Your task to perform on an android device: Search for beats solo 3 on newegg, select the first entry, add it to the cart, then select checkout. Image 0: 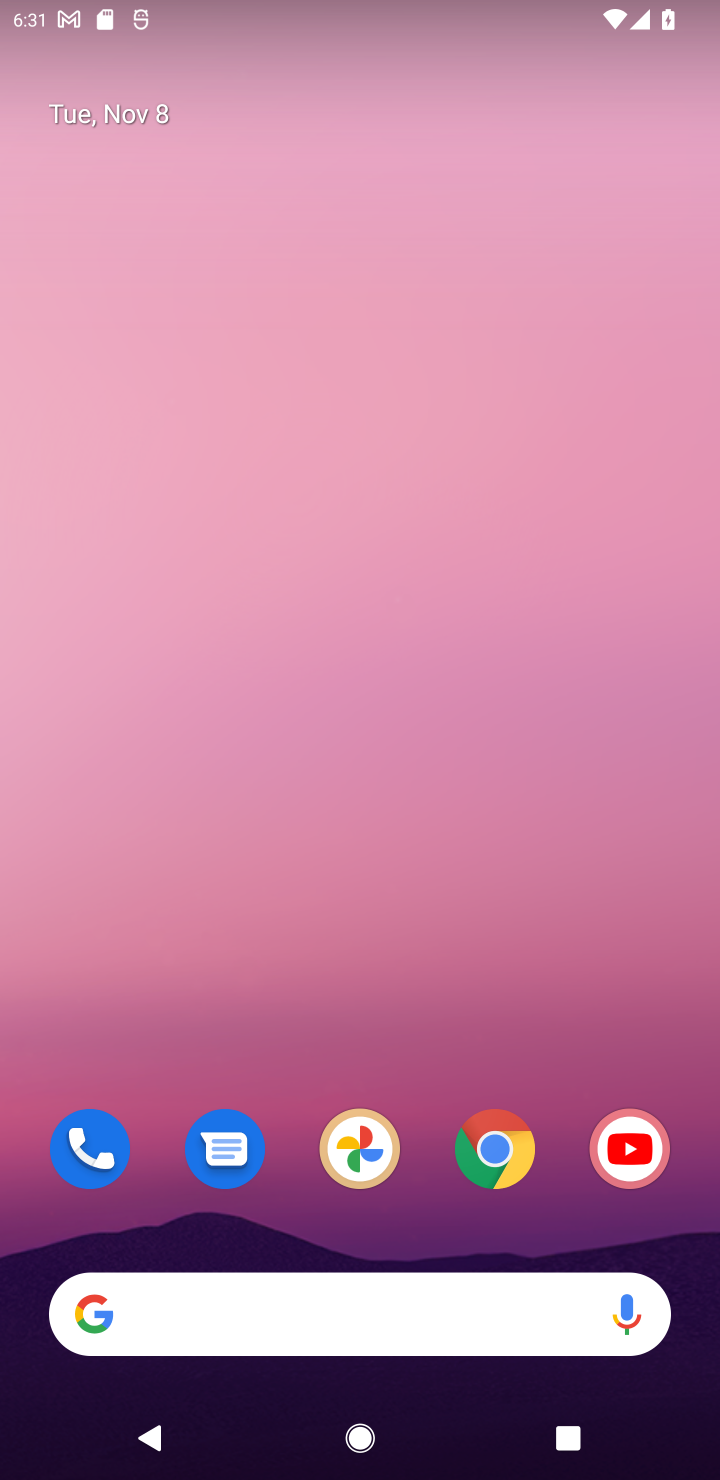
Step 0: click (482, 1152)
Your task to perform on an android device: Search for beats solo 3 on newegg, select the first entry, add it to the cart, then select checkout. Image 1: 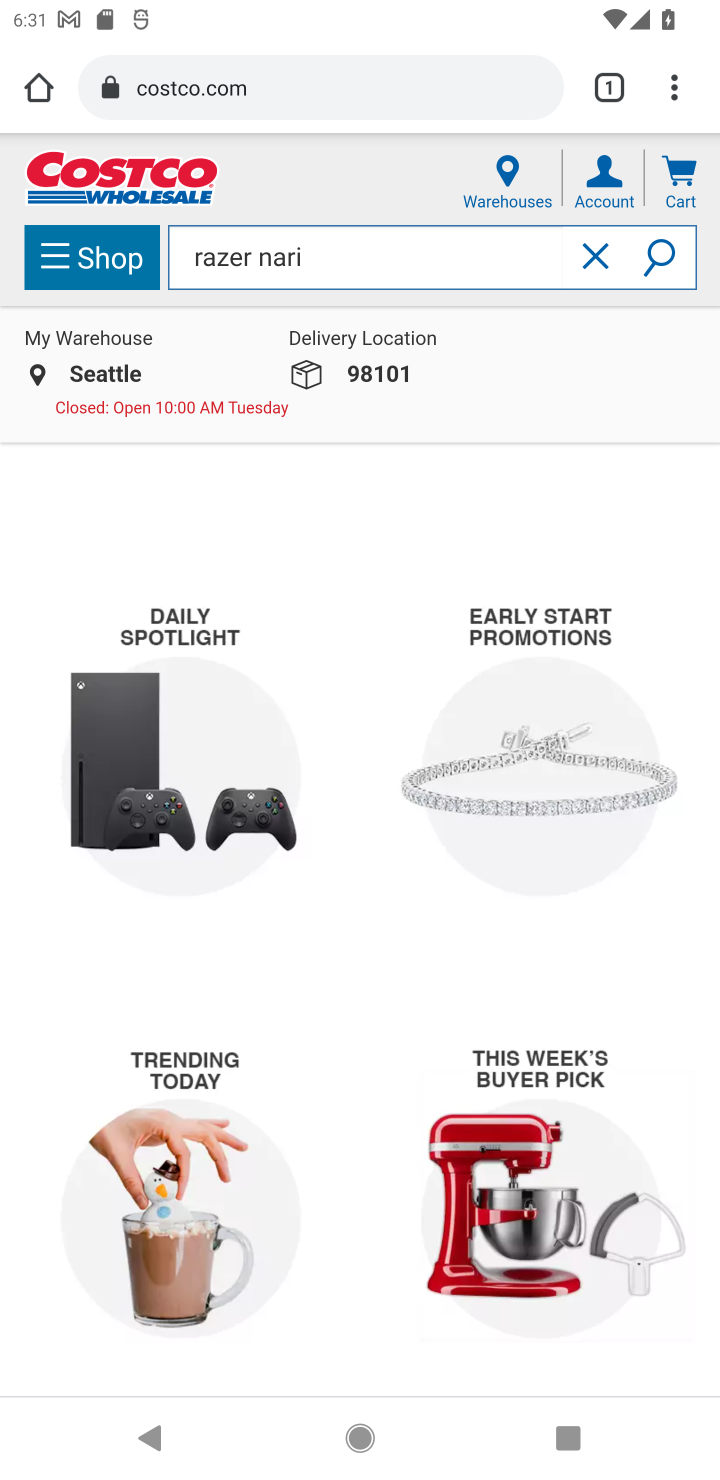
Step 1: click (443, 76)
Your task to perform on an android device: Search for beats solo 3 on newegg, select the first entry, add it to the cart, then select checkout. Image 2: 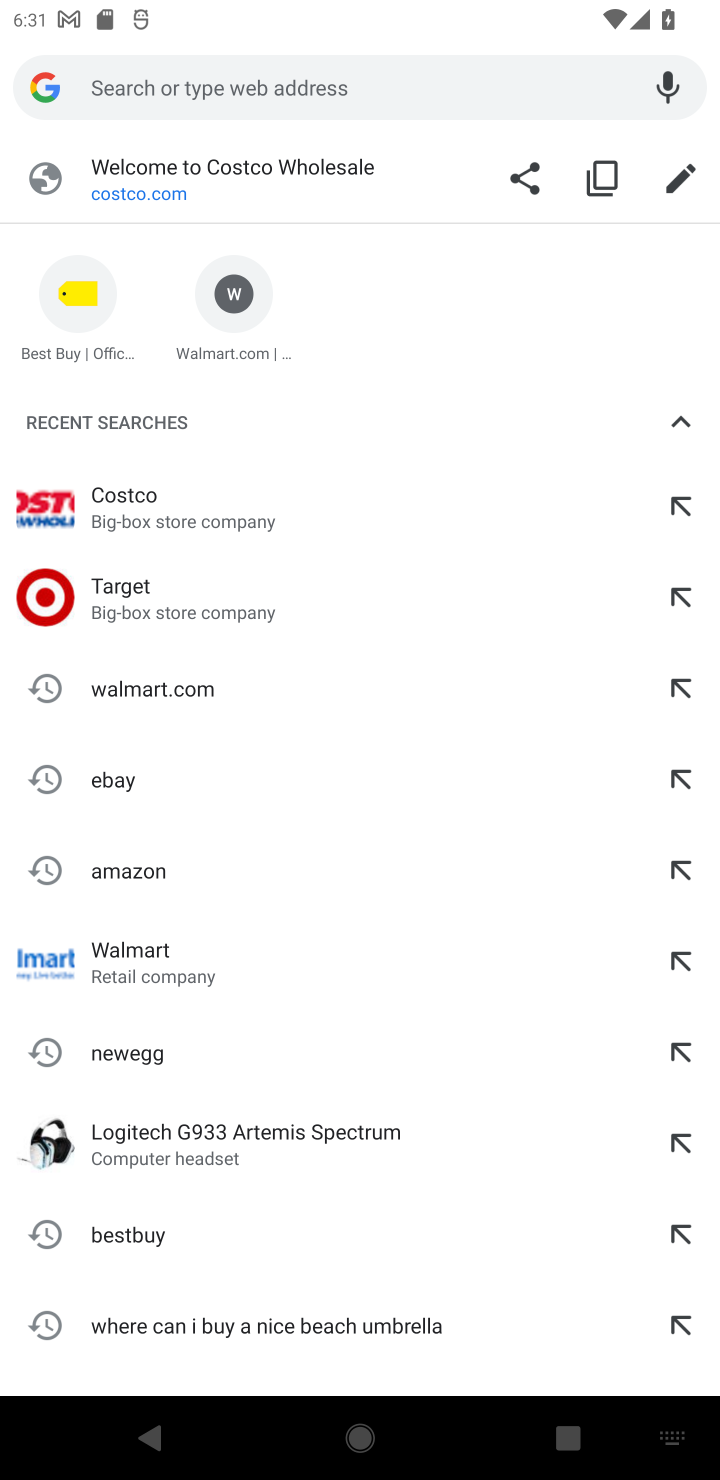
Step 2: type "newegg"
Your task to perform on an android device: Search for beats solo 3 on newegg, select the first entry, add it to the cart, then select checkout. Image 3: 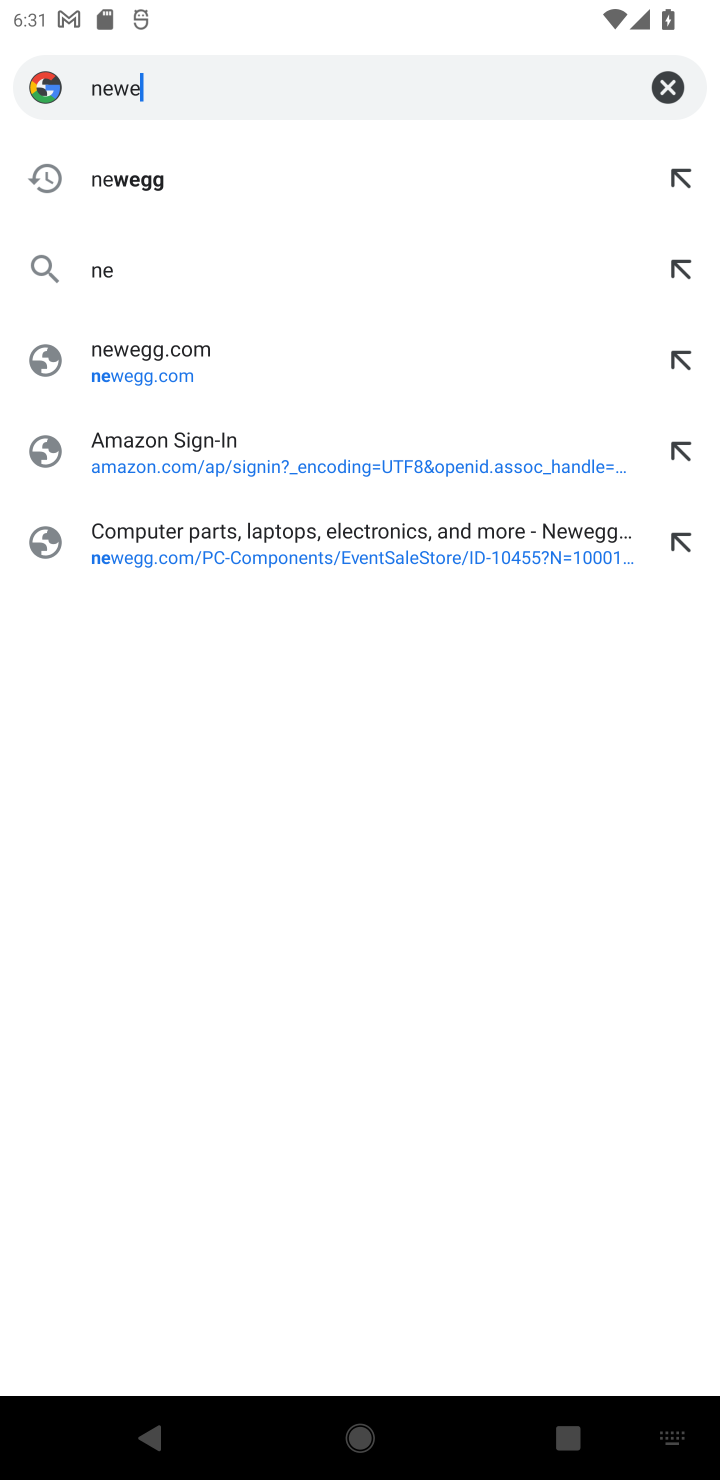
Step 3: press enter
Your task to perform on an android device: Search for beats solo 3 on newegg, select the first entry, add it to the cart, then select checkout. Image 4: 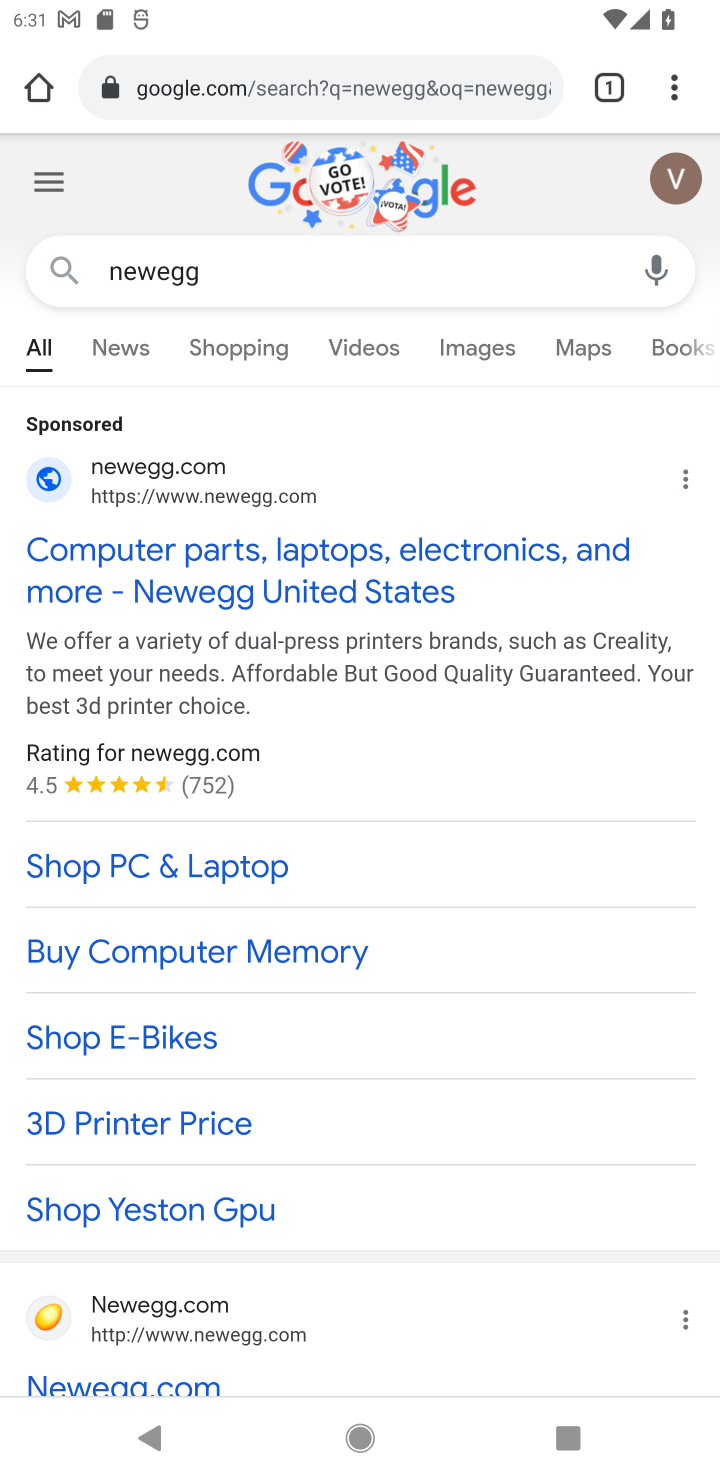
Step 4: click (214, 483)
Your task to perform on an android device: Search for beats solo 3 on newegg, select the first entry, add it to the cart, then select checkout. Image 5: 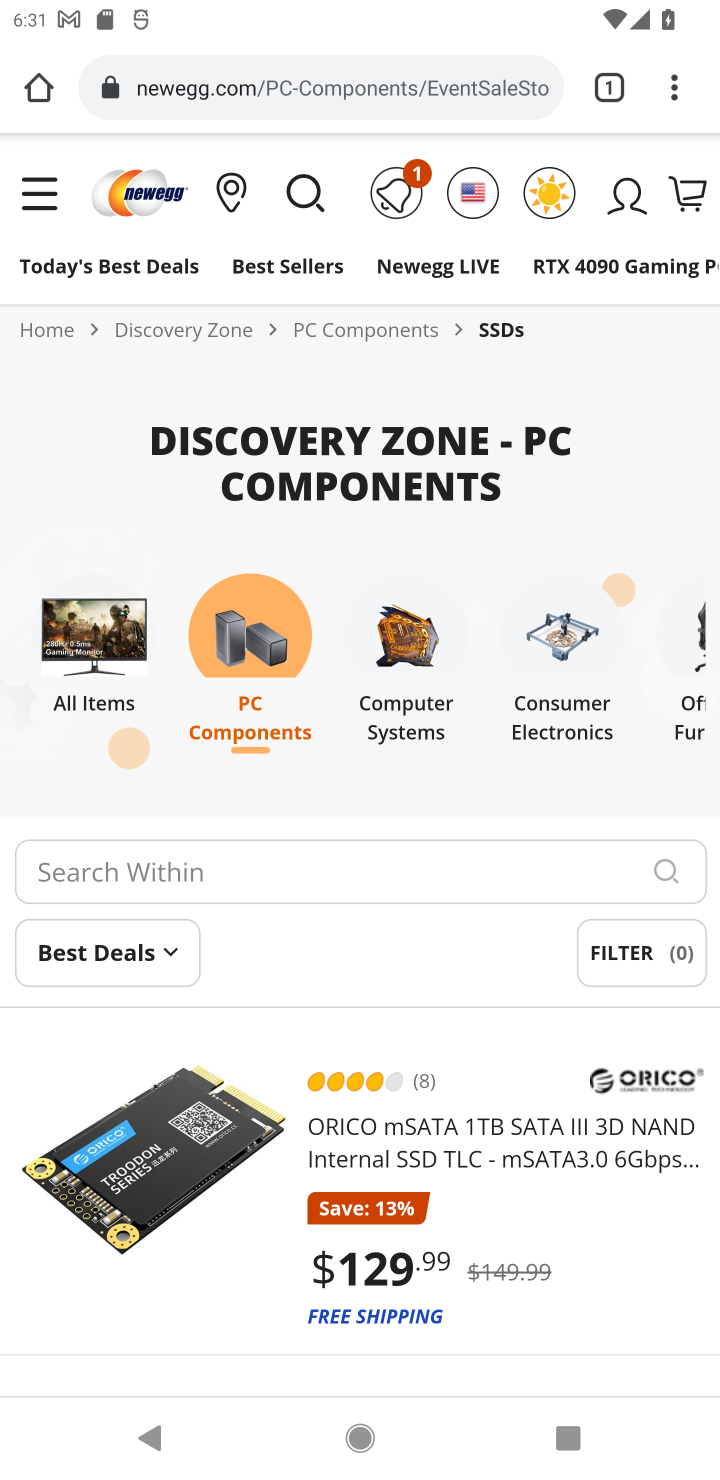
Step 5: click (295, 194)
Your task to perform on an android device: Search for beats solo 3 on newegg, select the first entry, add it to the cart, then select checkout. Image 6: 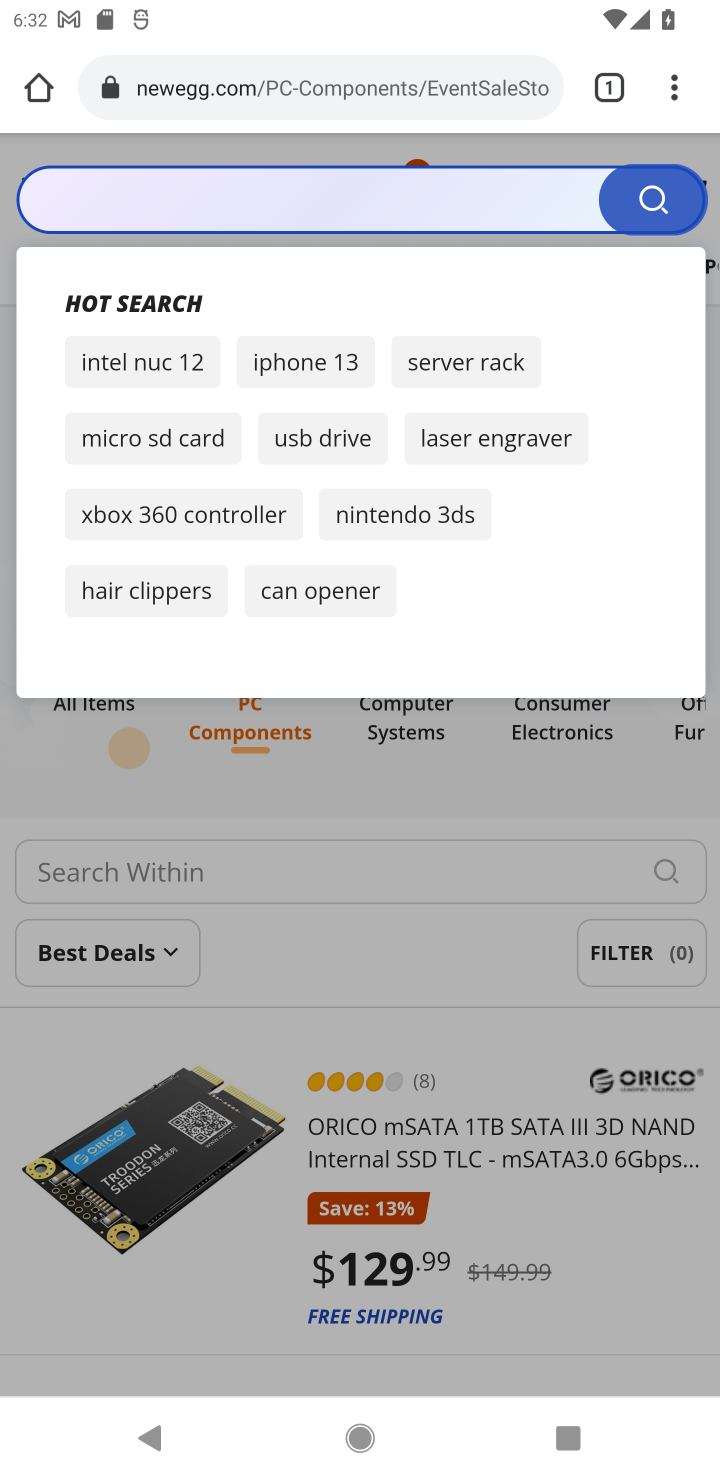
Step 6: press enter
Your task to perform on an android device: Search for beats solo 3 on newegg, select the first entry, add it to the cart, then select checkout. Image 7: 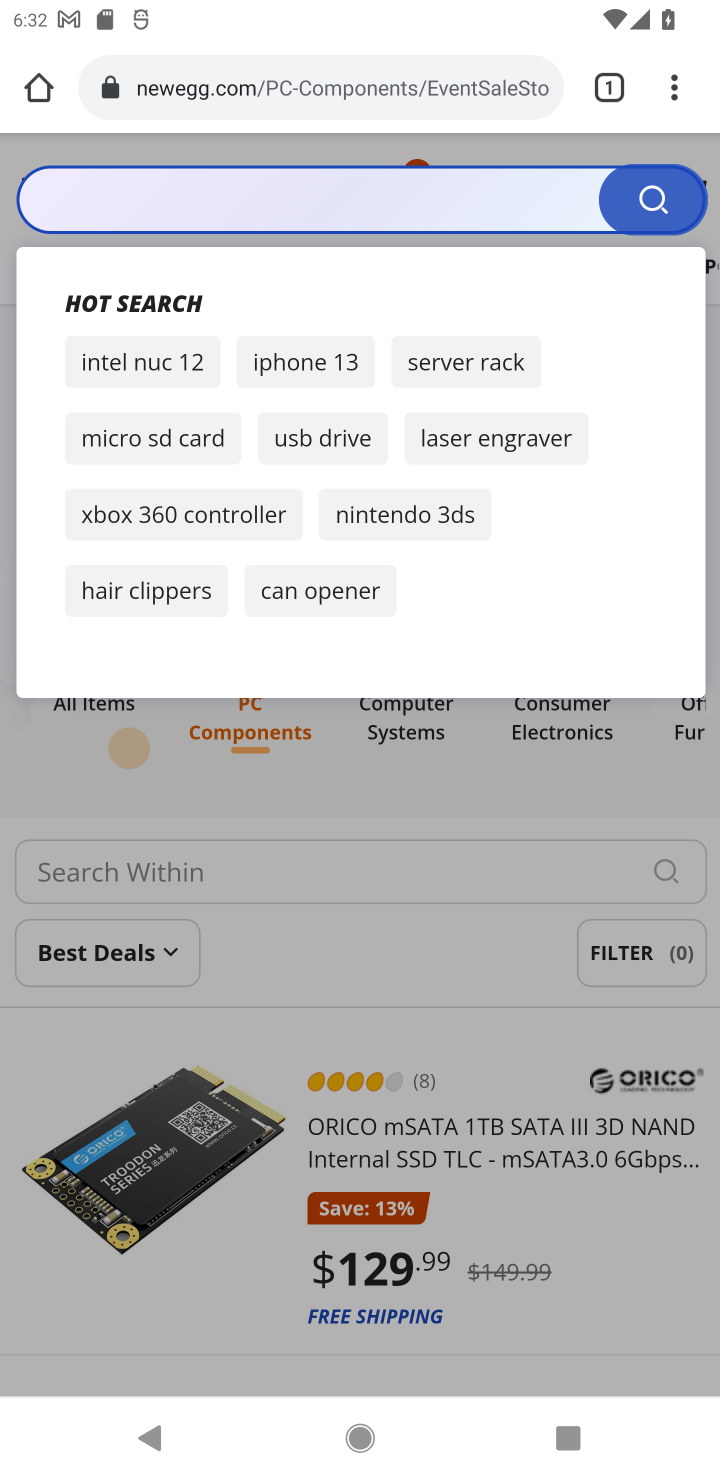
Step 7: type "beats solo 3"
Your task to perform on an android device: Search for beats solo 3 on newegg, select the first entry, add it to the cart, then select checkout. Image 8: 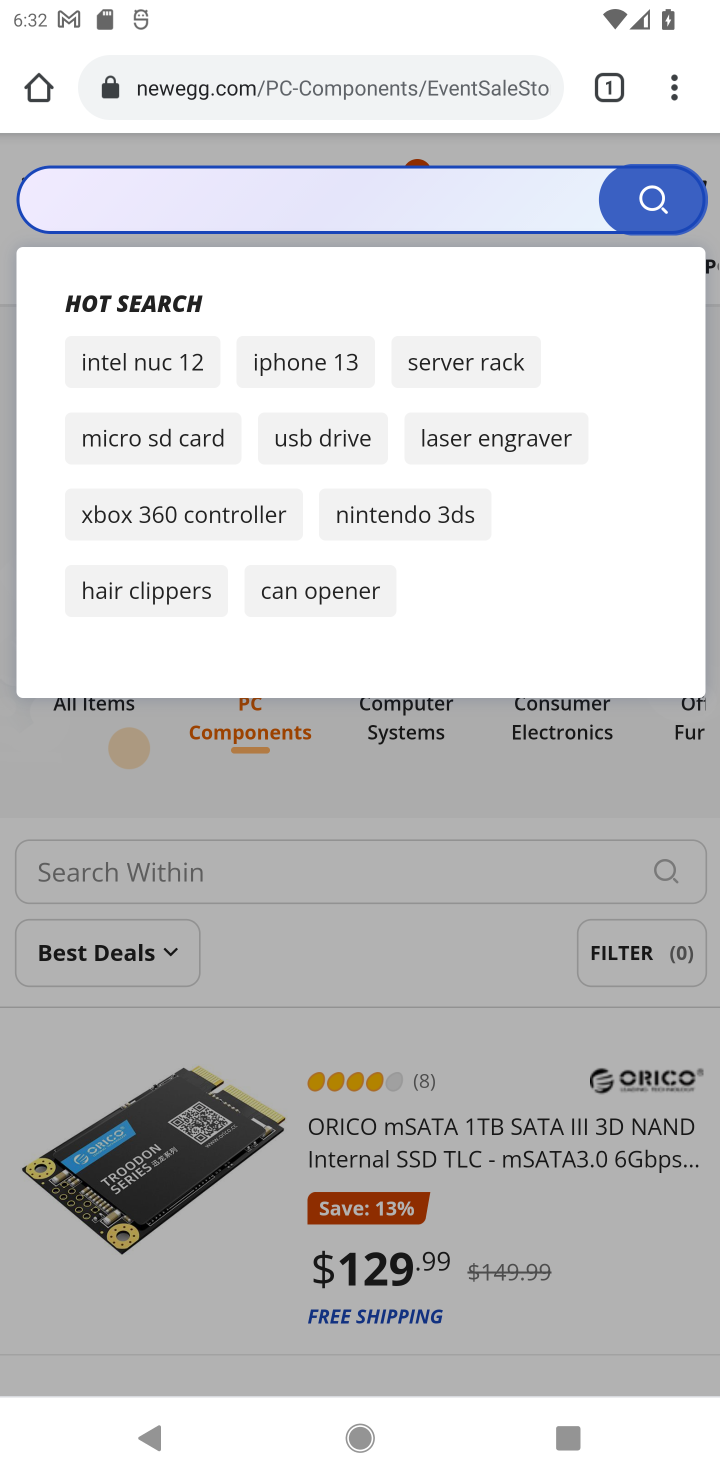
Step 8: click (472, 194)
Your task to perform on an android device: Search for beats solo 3 on newegg, select the first entry, add it to the cart, then select checkout. Image 9: 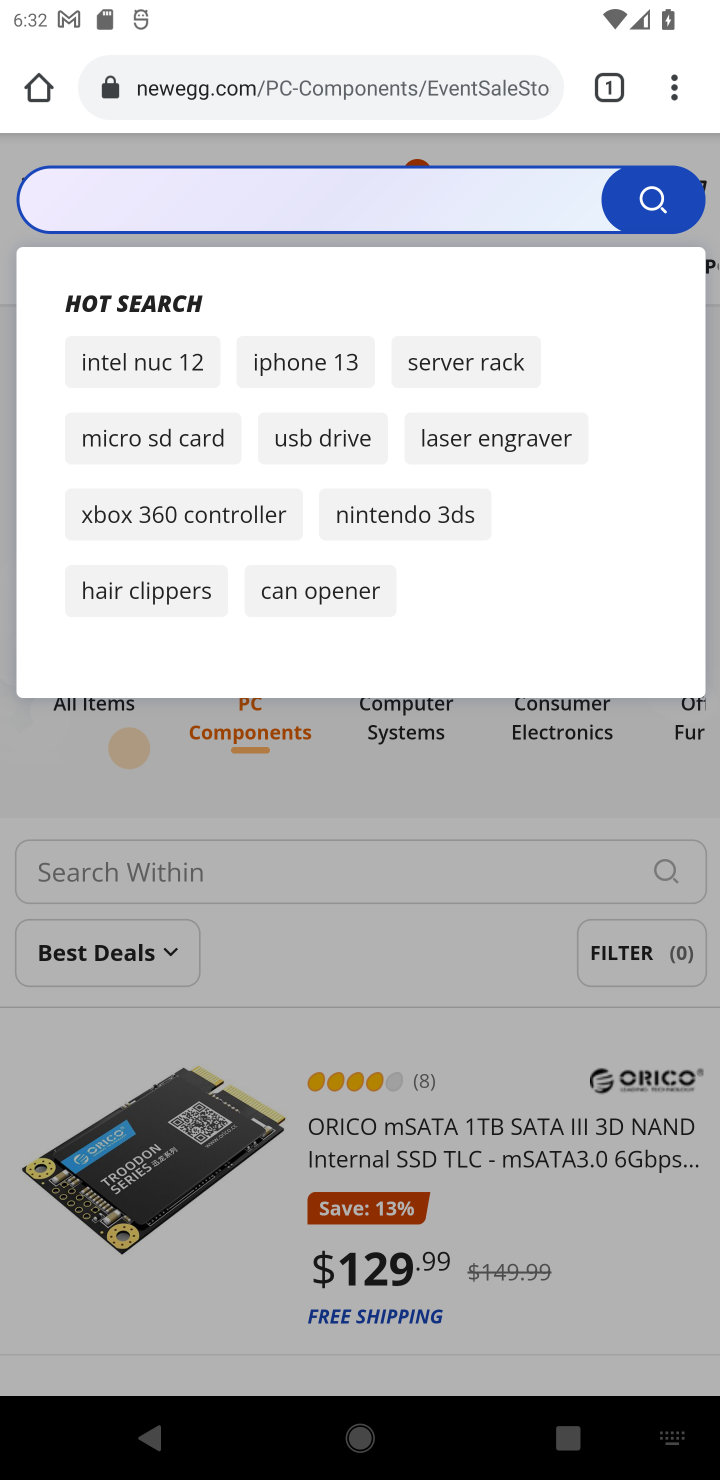
Step 9: type "beats solo 3"
Your task to perform on an android device: Search for beats solo 3 on newegg, select the first entry, add it to the cart, then select checkout. Image 10: 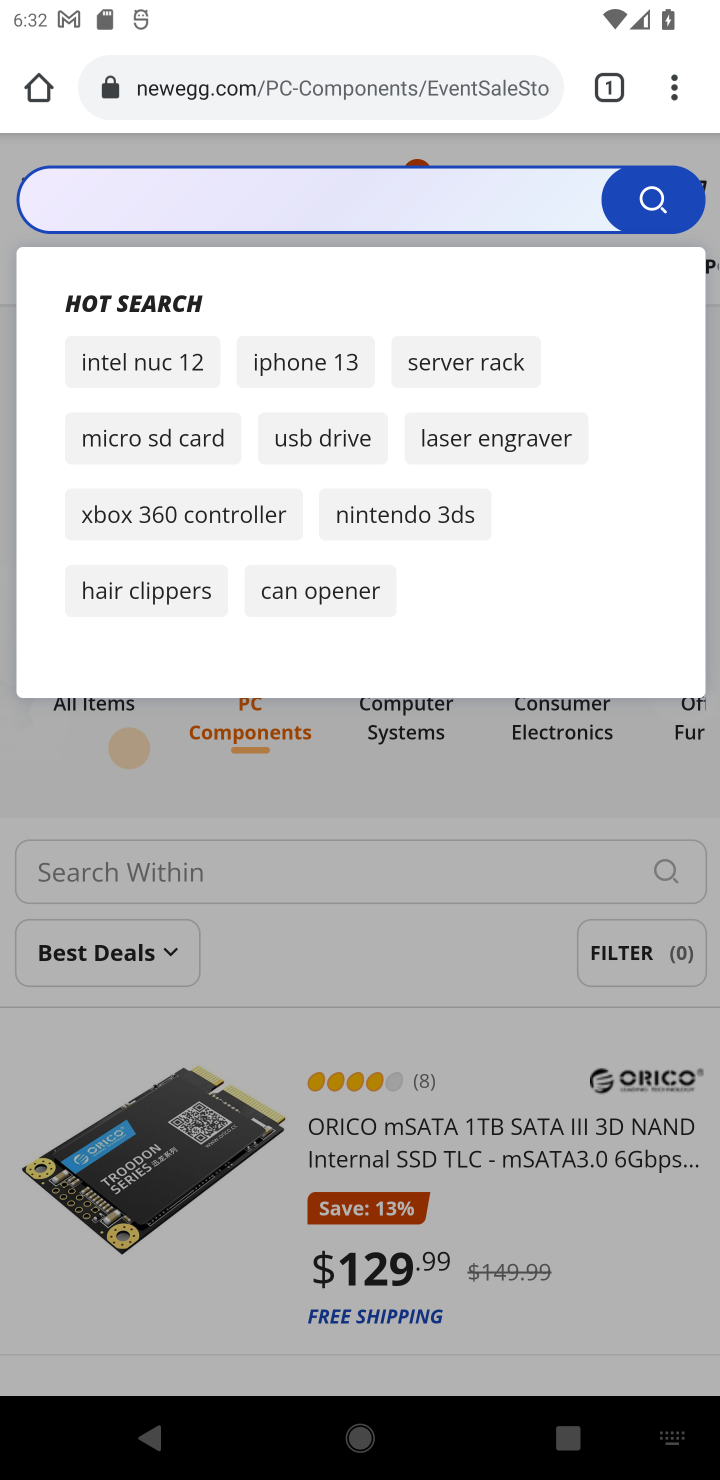
Step 10: press enter
Your task to perform on an android device: Search for beats solo 3 on newegg, select the first entry, add it to the cart, then select checkout. Image 11: 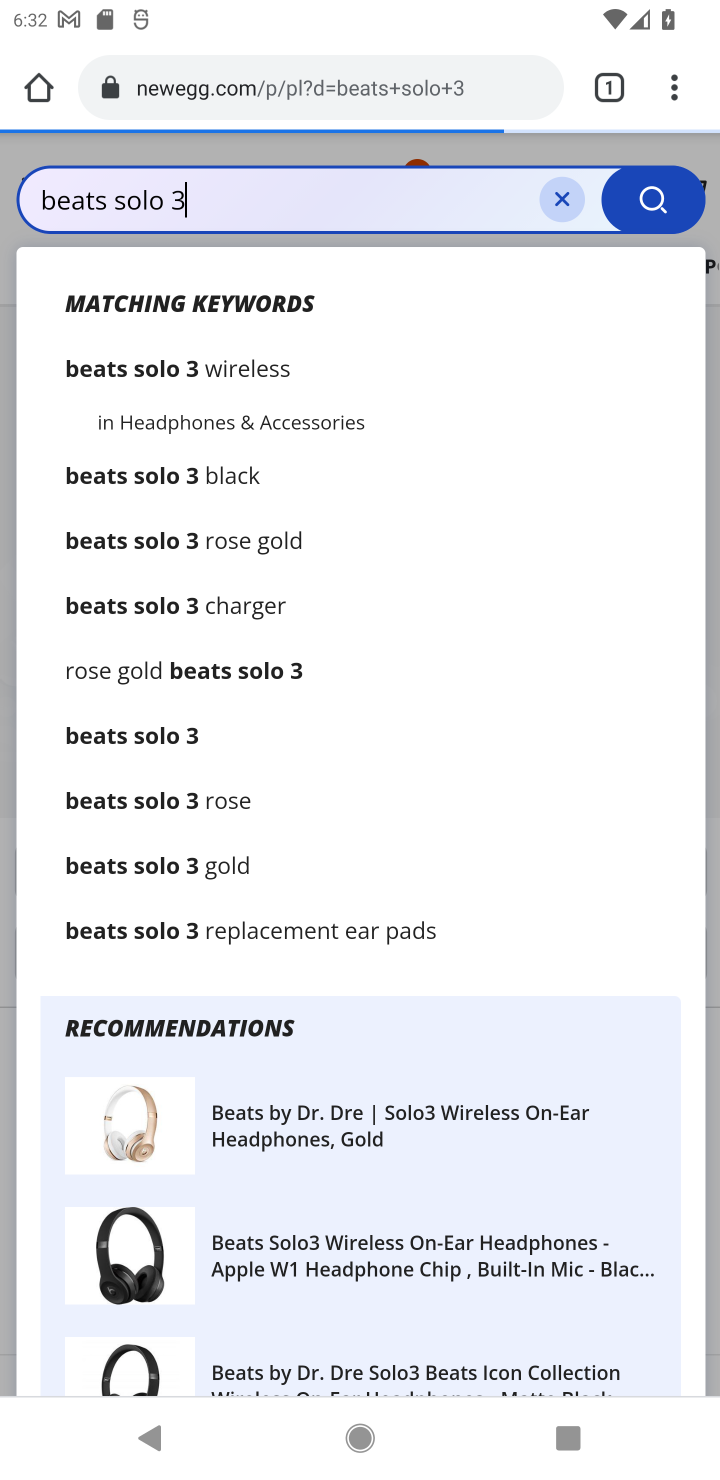
Step 11: click (147, 737)
Your task to perform on an android device: Search for beats solo 3 on newegg, select the first entry, add it to the cart, then select checkout. Image 12: 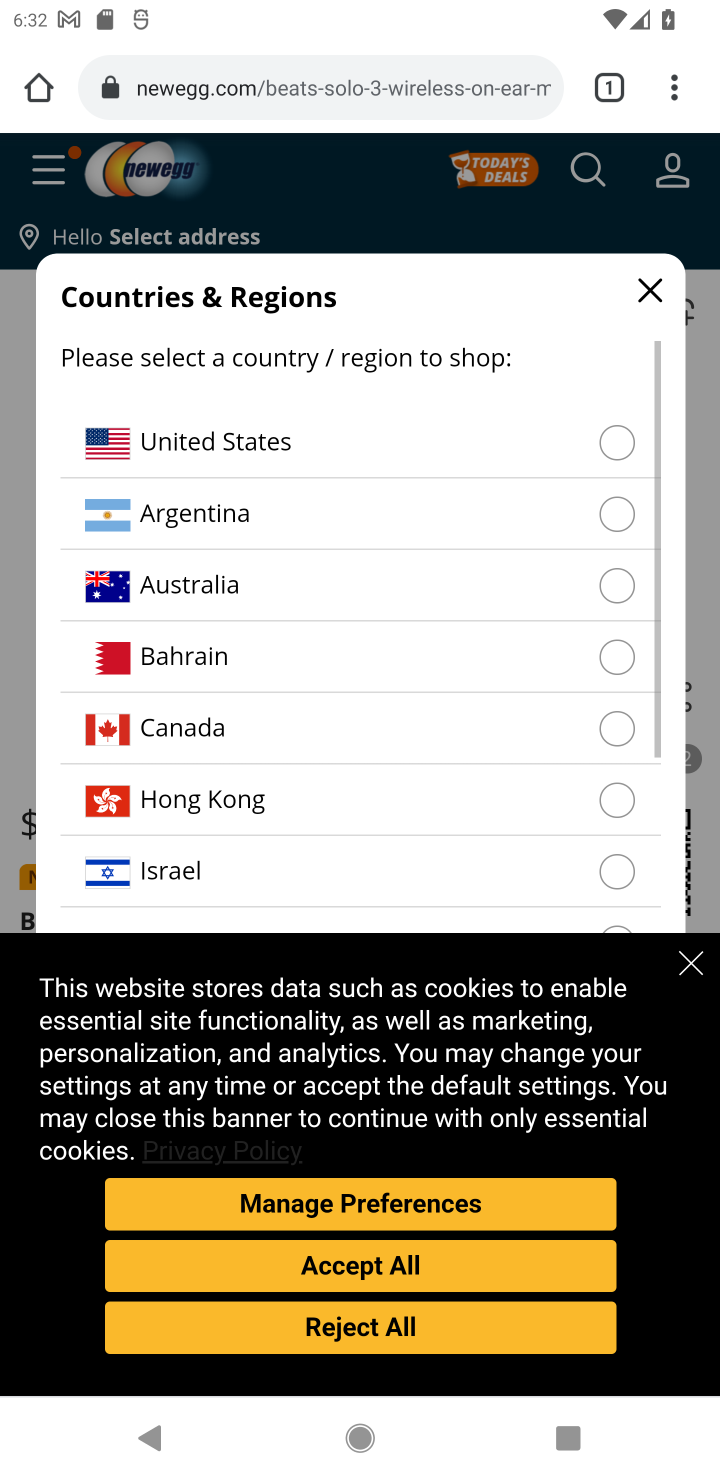
Step 12: click (615, 434)
Your task to perform on an android device: Search for beats solo 3 on newegg, select the first entry, add it to the cart, then select checkout. Image 13: 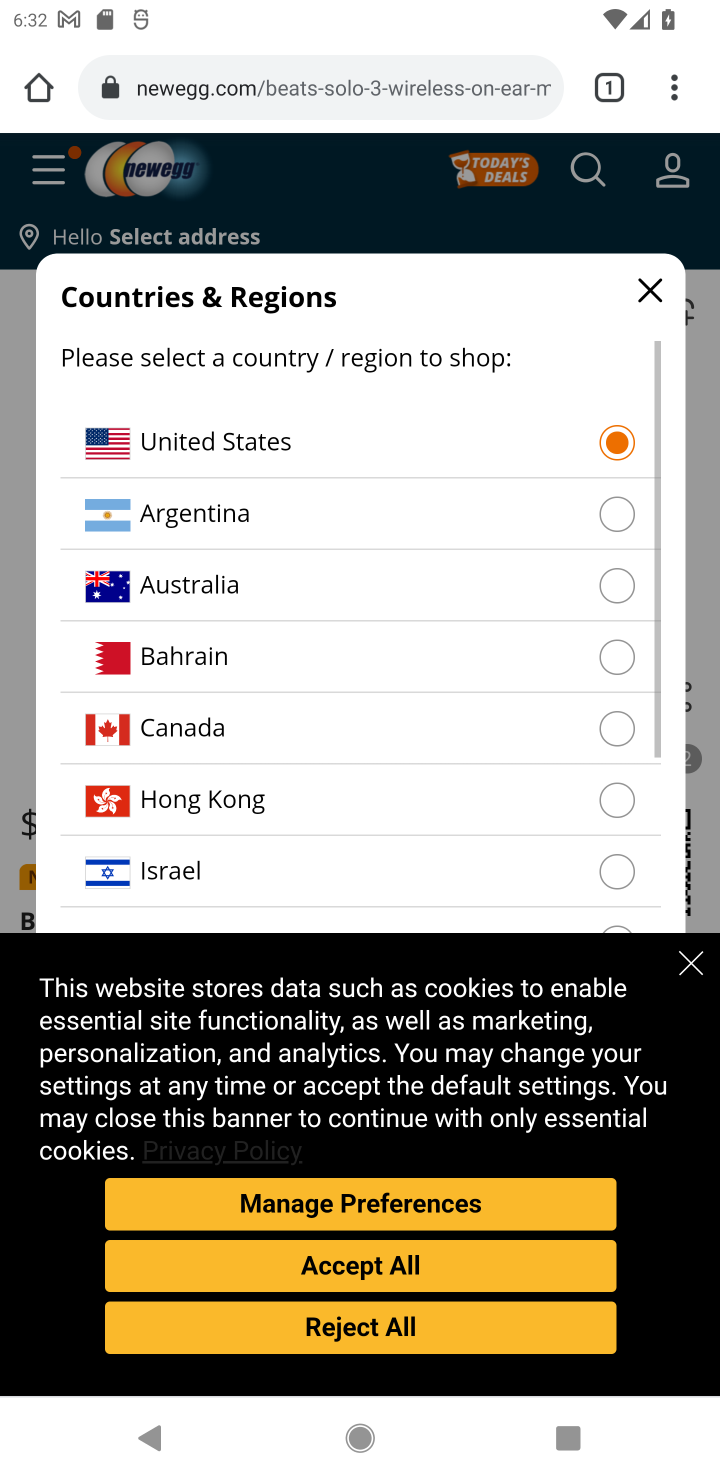
Step 13: click (688, 966)
Your task to perform on an android device: Search for beats solo 3 on newegg, select the first entry, add it to the cart, then select checkout. Image 14: 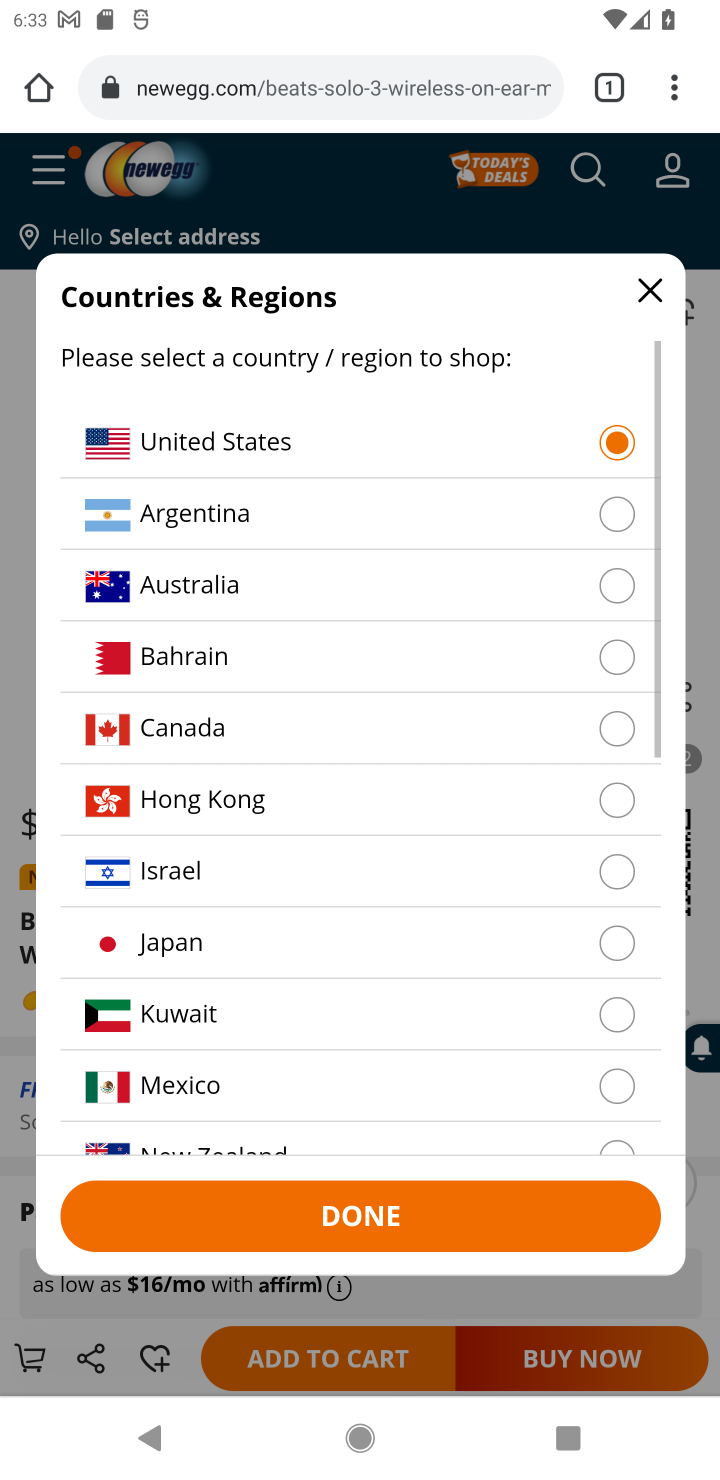
Step 14: click (482, 1239)
Your task to perform on an android device: Search for beats solo 3 on newegg, select the first entry, add it to the cart, then select checkout. Image 15: 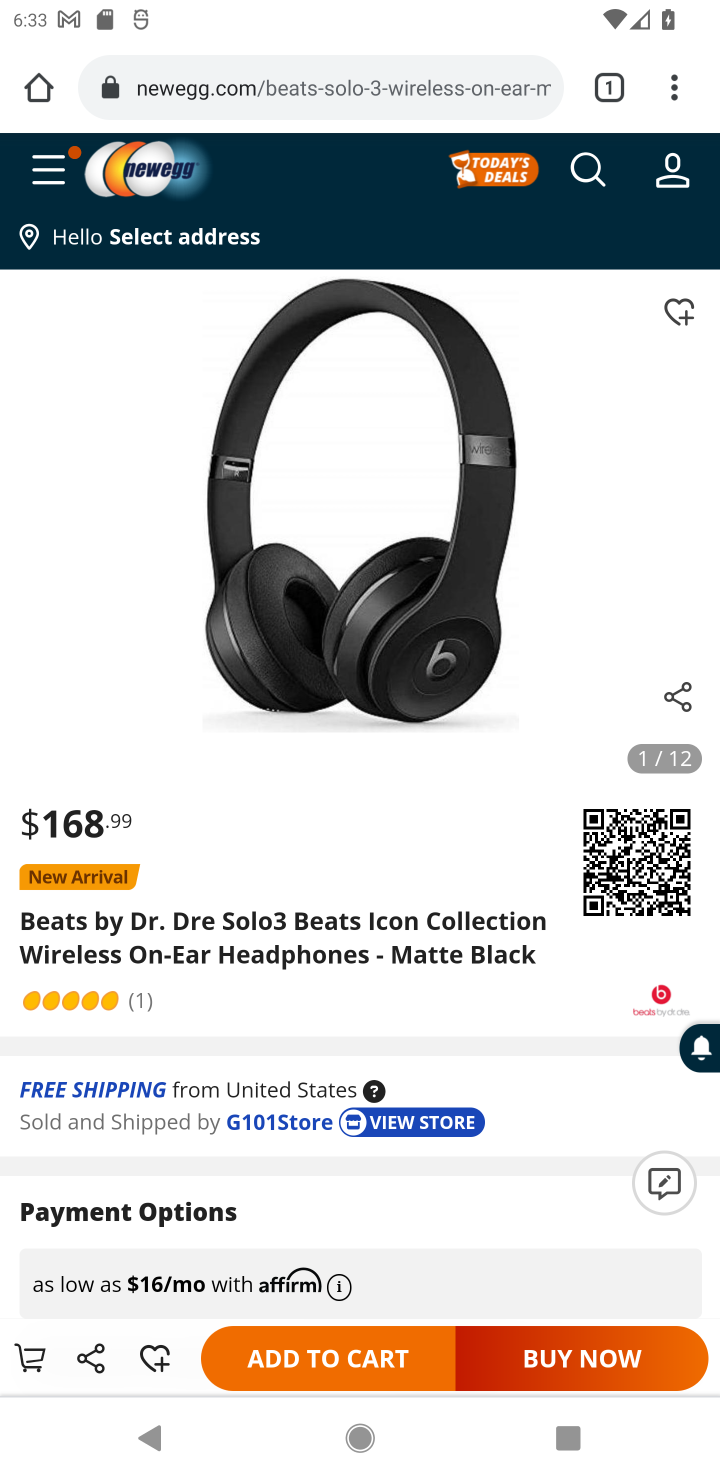
Step 15: click (328, 1352)
Your task to perform on an android device: Search for beats solo 3 on newegg, select the first entry, add it to the cart, then select checkout. Image 16: 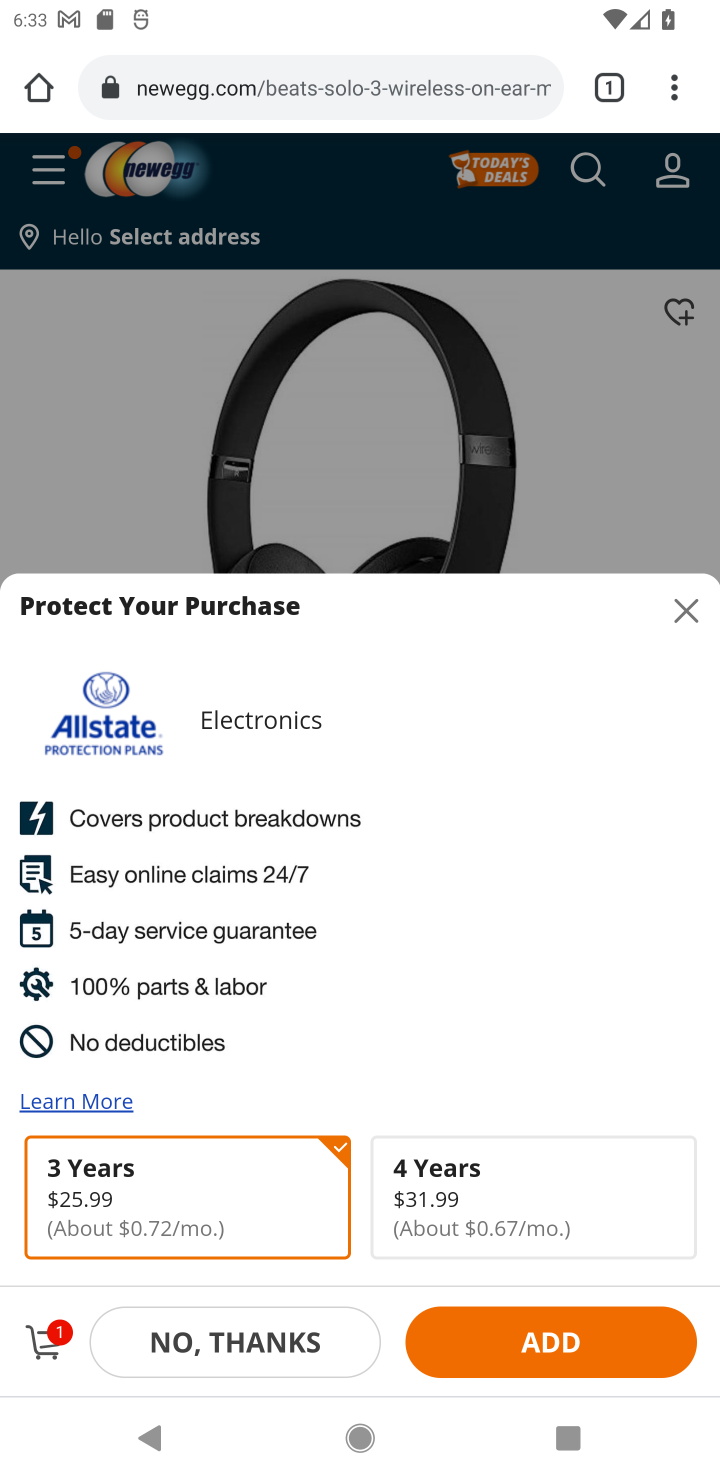
Step 16: click (686, 609)
Your task to perform on an android device: Search for beats solo 3 on newegg, select the first entry, add it to the cart, then select checkout. Image 17: 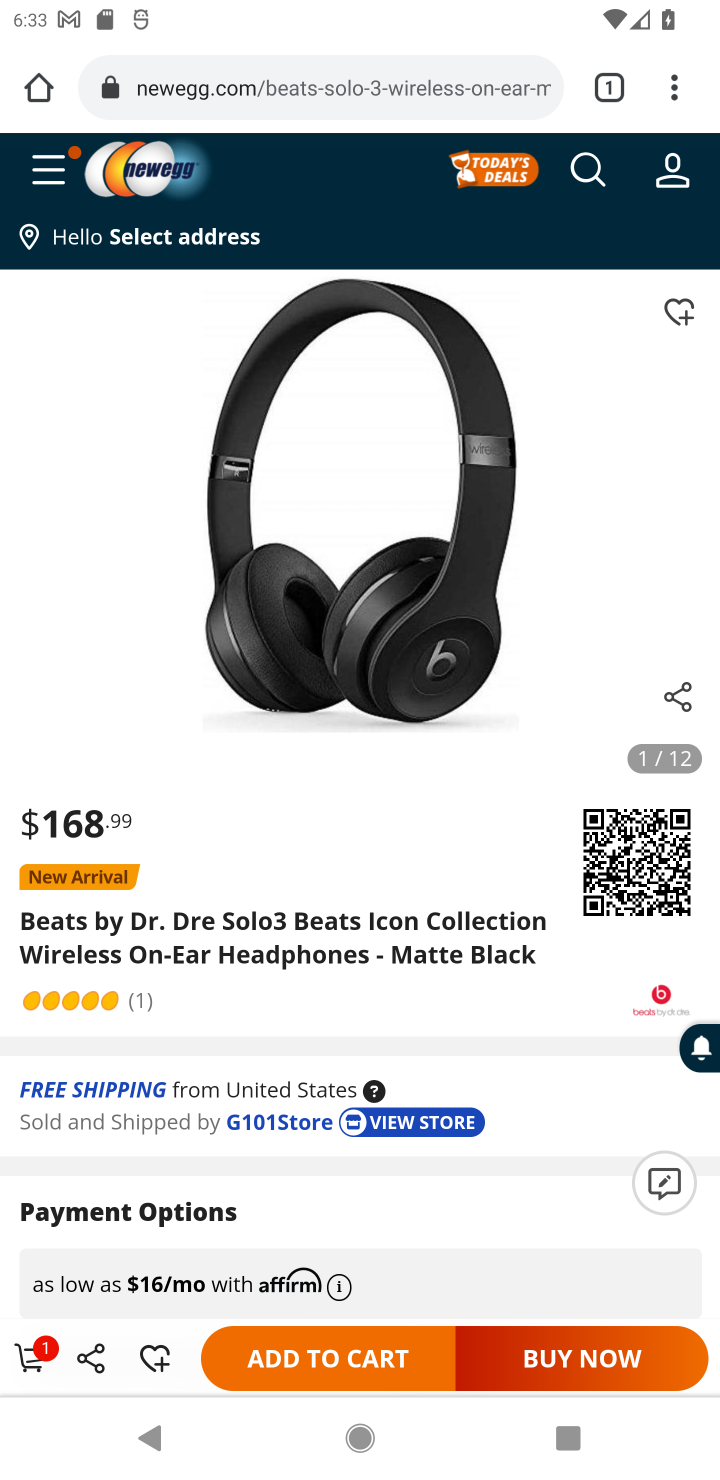
Step 17: click (32, 1361)
Your task to perform on an android device: Search for beats solo 3 on newegg, select the first entry, add it to the cart, then select checkout. Image 18: 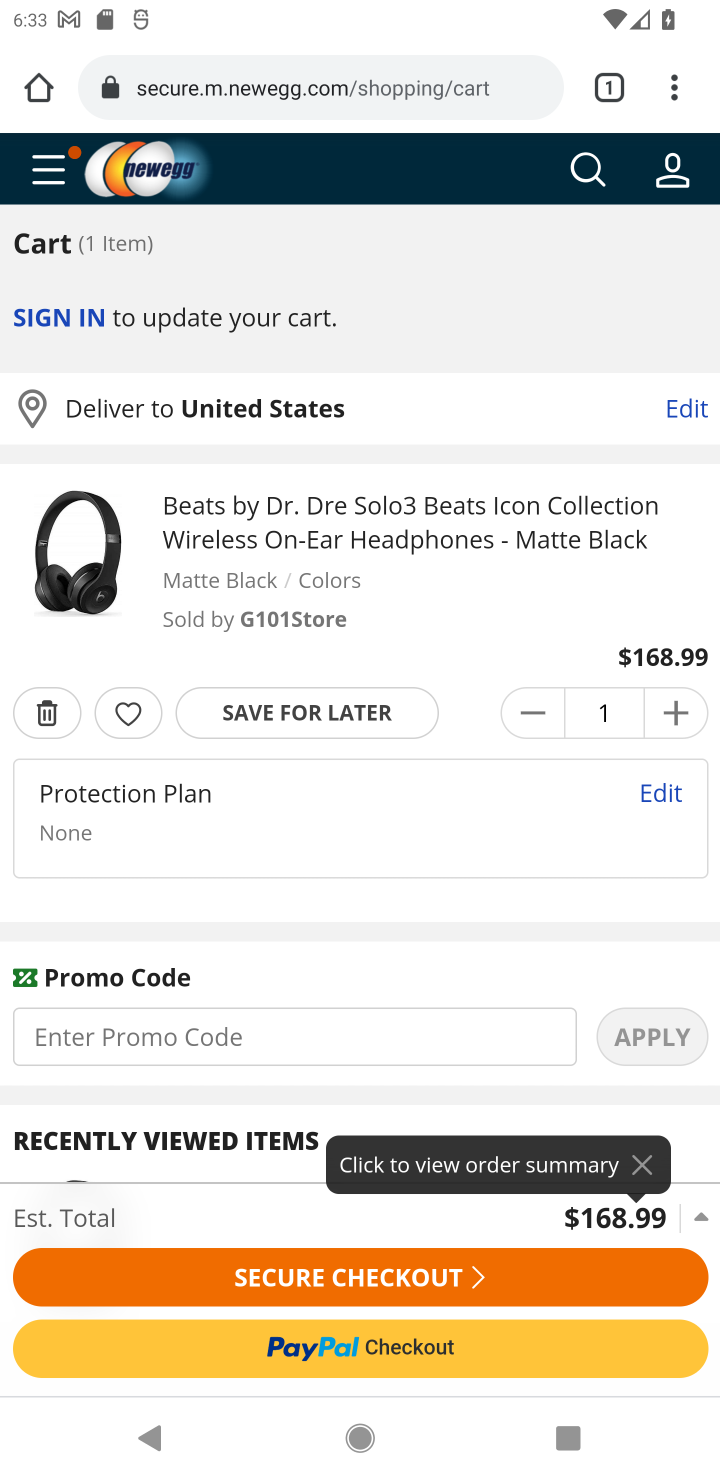
Step 18: click (355, 1285)
Your task to perform on an android device: Search for beats solo 3 on newegg, select the first entry, add it to the cart, then select checkout. Image 19: 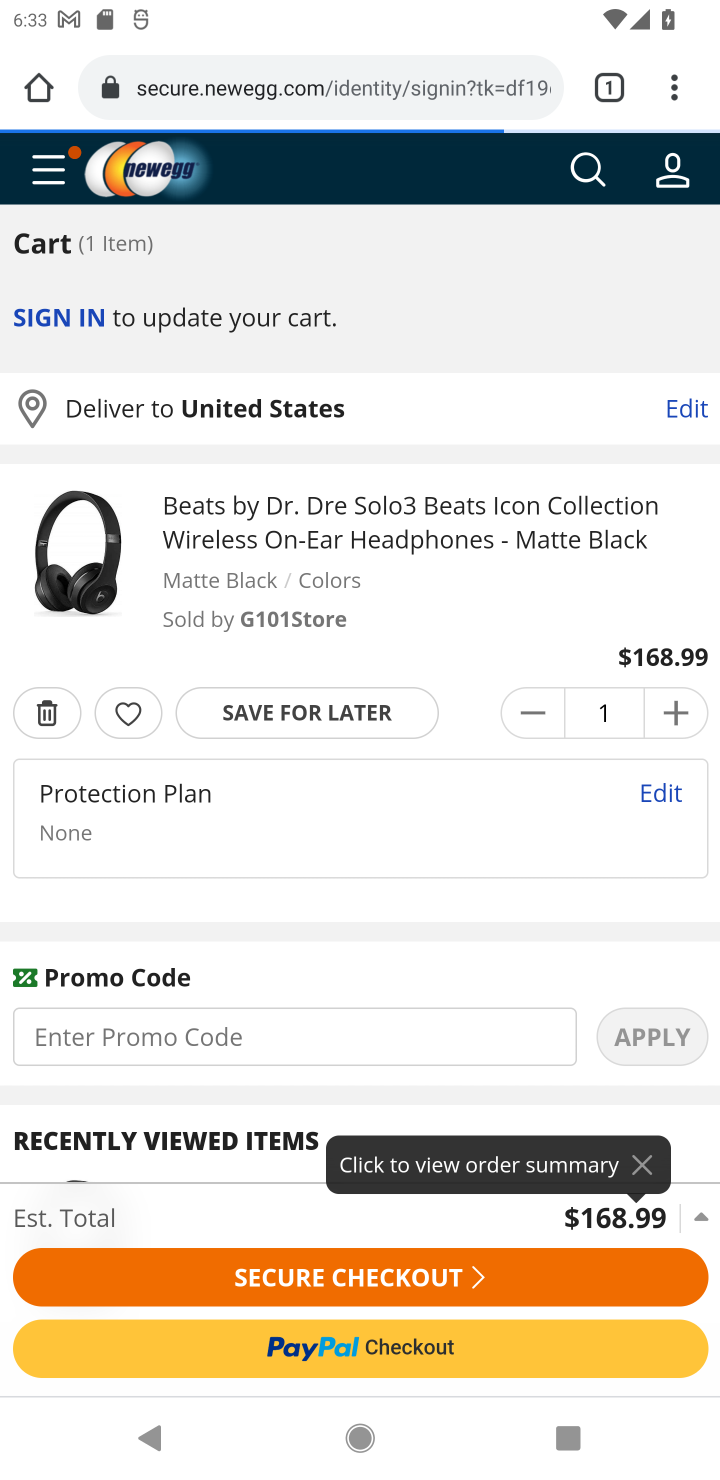
Step 19: task complete